Your task to perform on an android device: toggle show notifications on the lock screen Image 0: 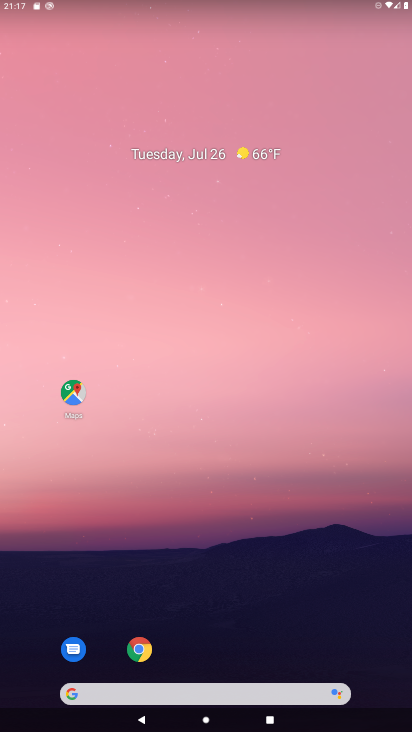
Step 0: drag from (183, 718) to (256, 53)
Your task to perform on an android device: toggle show notifications on the lock screen Image 1: 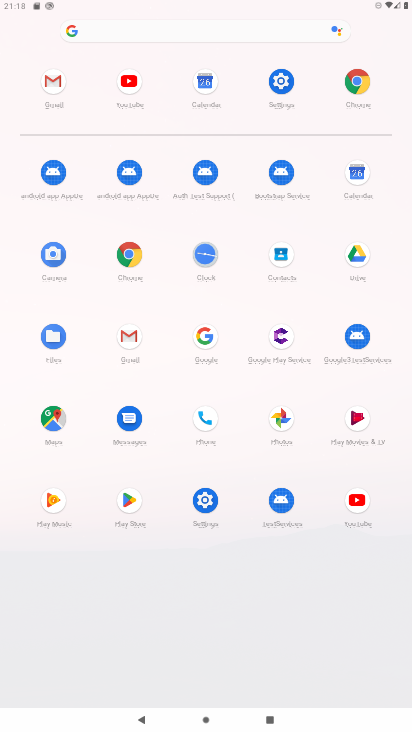
Step 1: click (276, 82)
Your task to perform on an android device: toggle show notifications on the lock screen Image 2: 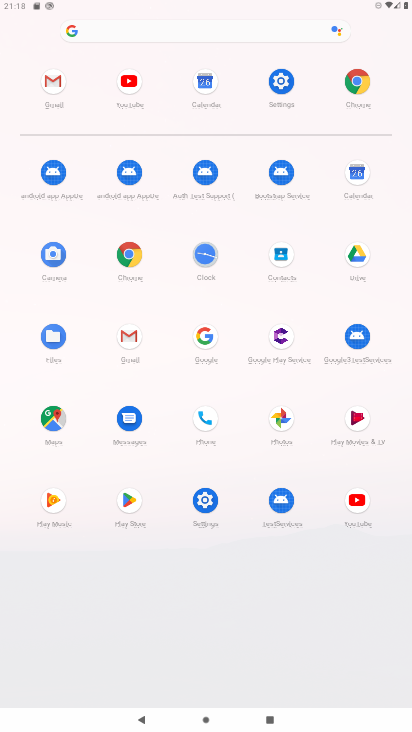
Step 2: click (276, 82)
Your task to perform on an android device: toggle show notifications on the lock screen Image 3: 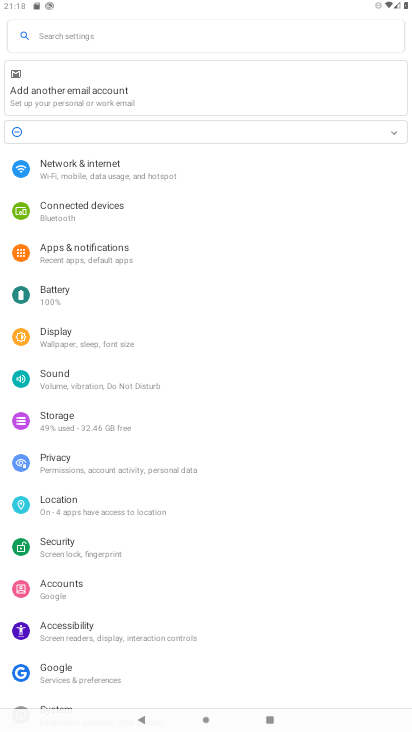
Step 3: click (114, 252)
Your task to perform on an android device: toggle show notifications on the lock screen Image 4: 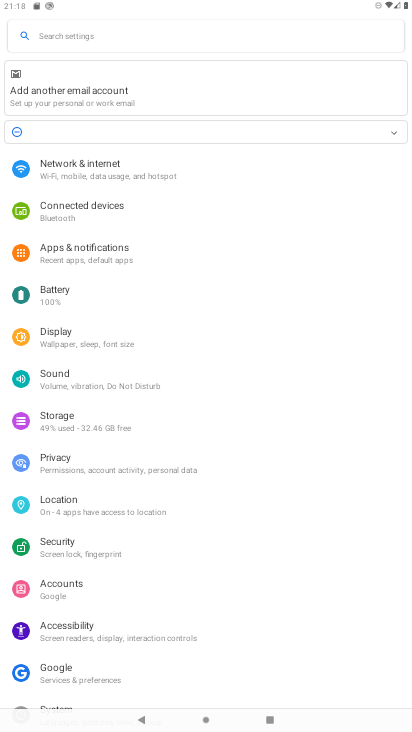
Step 4: click (114, 252)
Your task to perform on an android device: toggle show notifications on the lock screen Image 5: 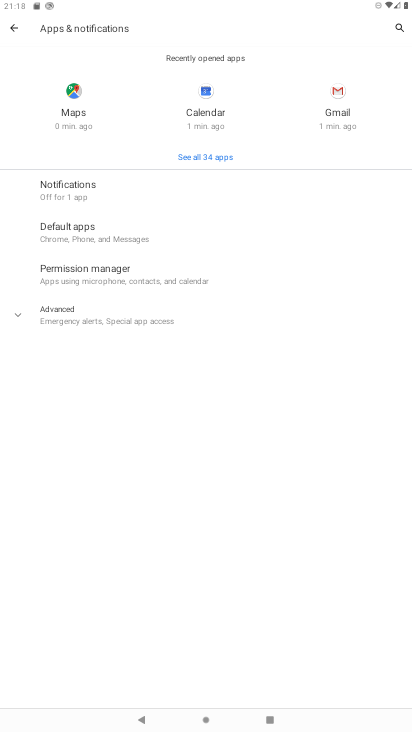
Step 5: click (110, 192)
Your task to perform on an android device: toggle show notifications on the lock screen Image 6: 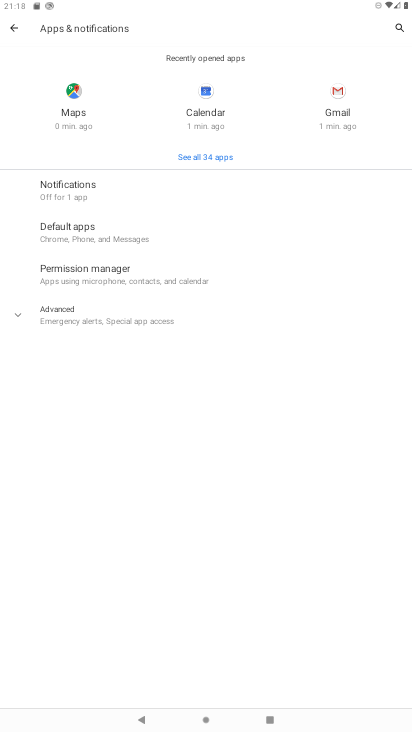
Step 6: click (110, 192)
Your task to perform on an android device: toggle show notifications on the lock screen Image 7: 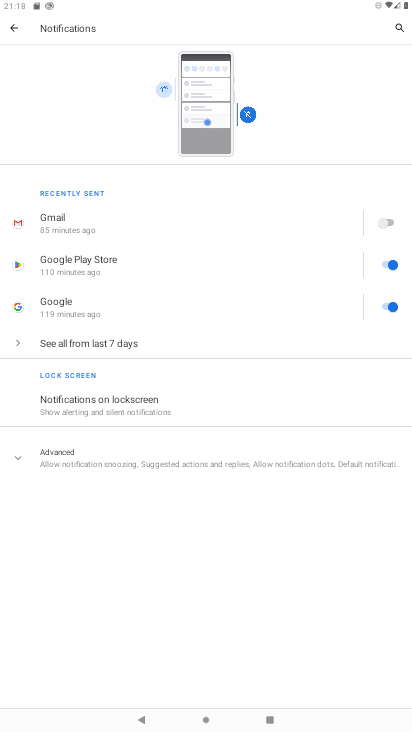
Step 7: click (135, 409)
Your task to perform on an android device: toggle show notifications on the lock screen Image 8: 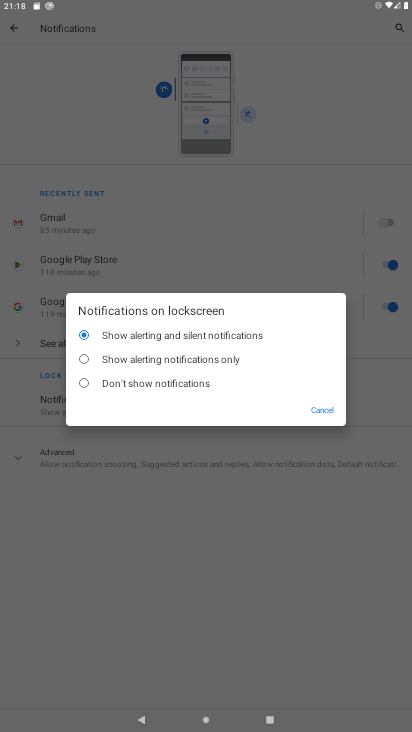
Step 8: click (143, 383)
Your task to perform on an android device: toggle show notifications on the lock screen Image 9: 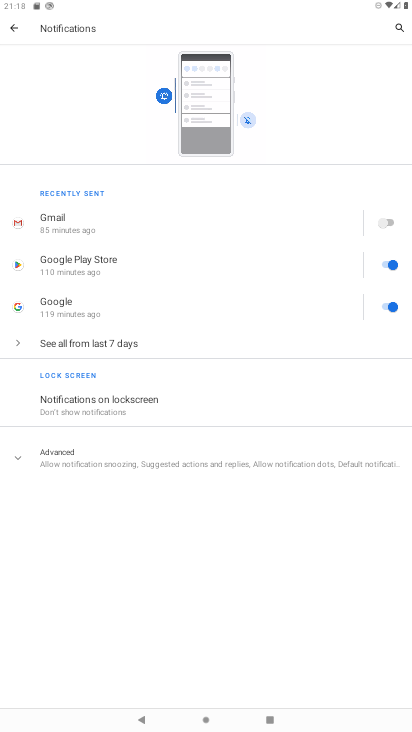
Step 9: task complete